Your task to perform on an android device: What's the weather going to be this weekend? Image 0: 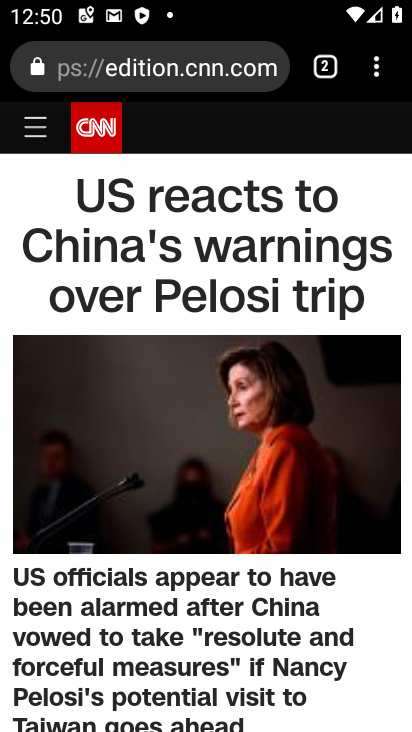
Step 0: press home button
Your task to perform on an android device: What's the weather going to be this weekend? Image 1: 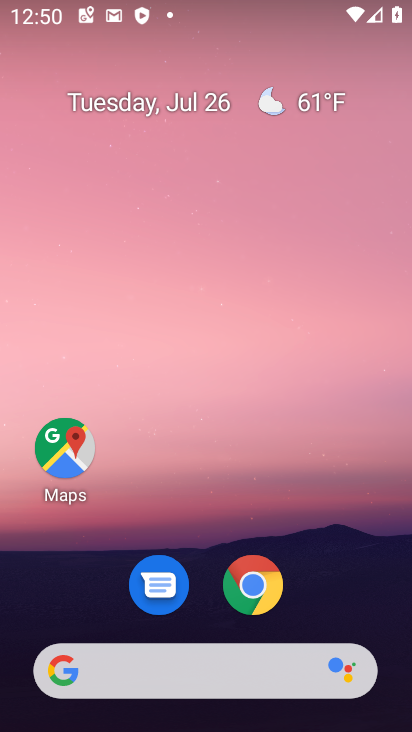
Step 1: click (125, 670)
Your task to perform on an android device: What's the weather going to be this weekend? Image 2: 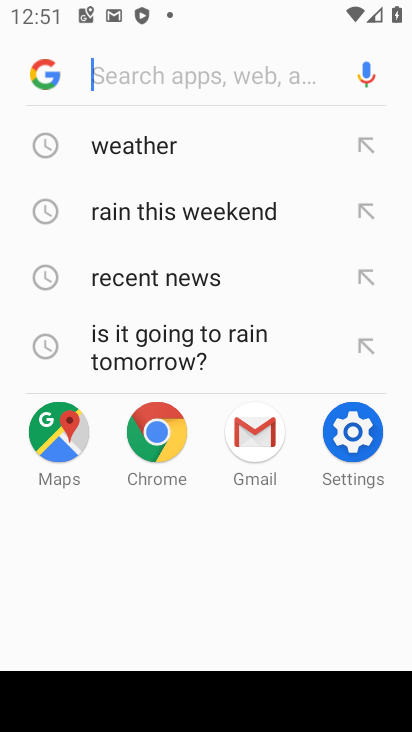
Step 2: click (168, 140)
Your task to perform on an android device: What's the weather going to be this weekend? Image 3: 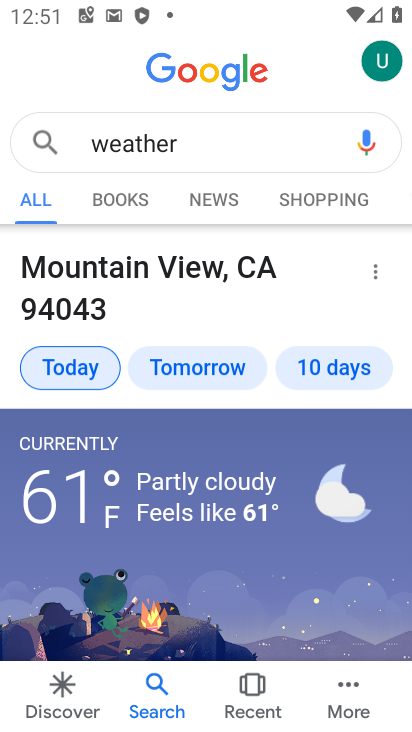
Step 3: click (310, 372)
Your task to perform on an android device: What's the weather going to be this weekend? Image 4: 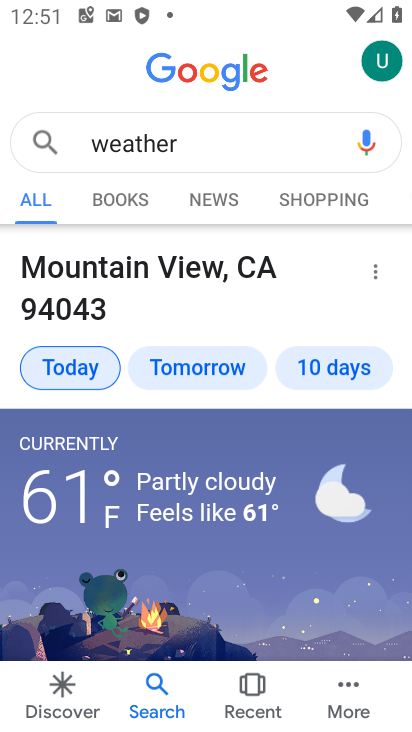
Step 4: click (341, 370)
Your task to perform on an android device: What's the weather going to be this weekend? Image 5: 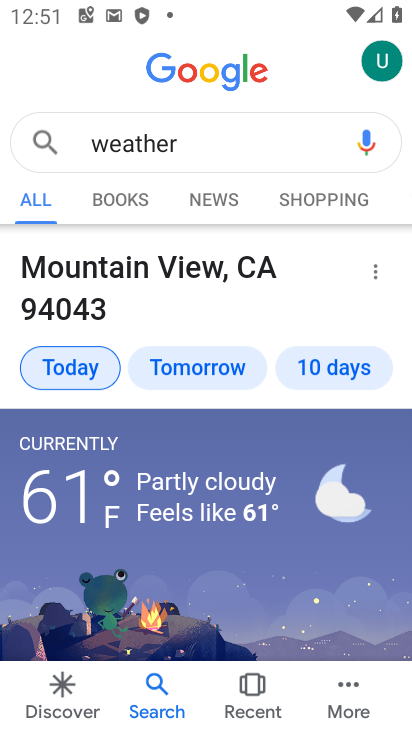
Step 5: drag from (193, 640) to (357, 239)
Your task to perform on an android device: What's the weather going to be this weekend? Image 6: 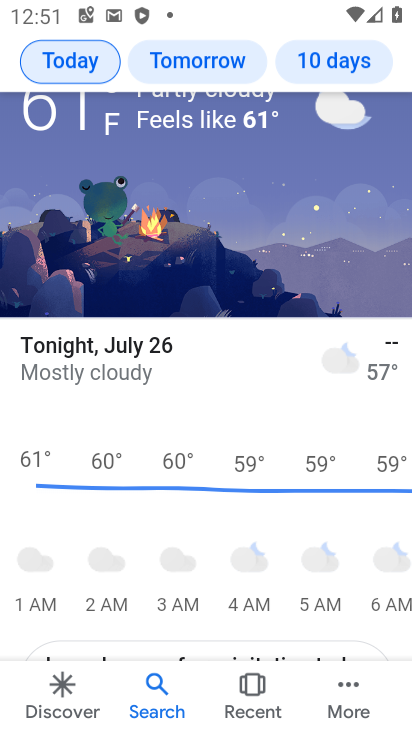
Step 6: drag from (338, 269) to (289, 485)
Your task to perform on an android device: What's the weather going to be this weekend? Image 7: 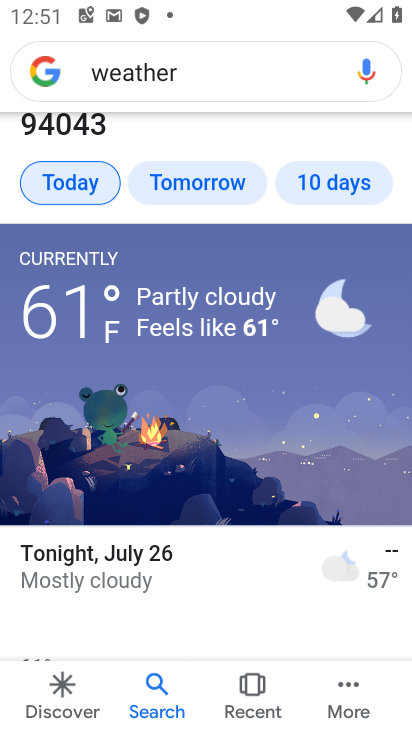
Step 7: click (346, 182)
Your task to perform on an android device: What's the weather going to be this weekend? Image 8: 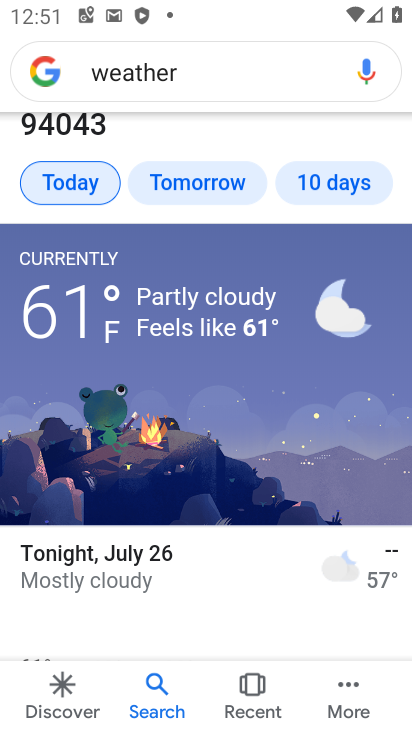
Step 8: click (339, 179)
Your task to perform on an android device: What's the weather going to be this weekend? Image 9: 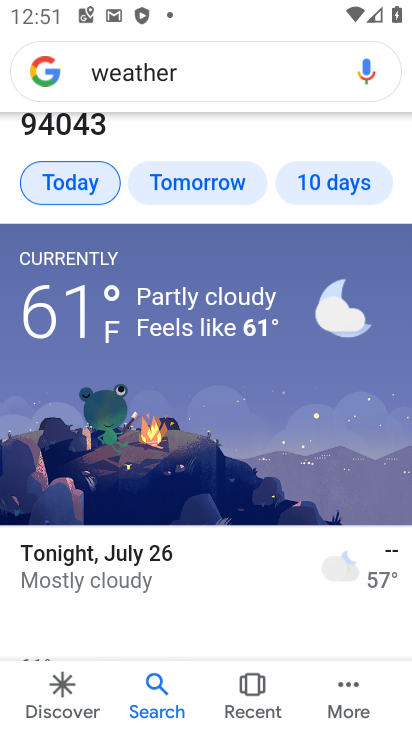
Step 9: click (323, 182)
Your task to perform on an android device: What's the weather going to be this weekend? Image 10: 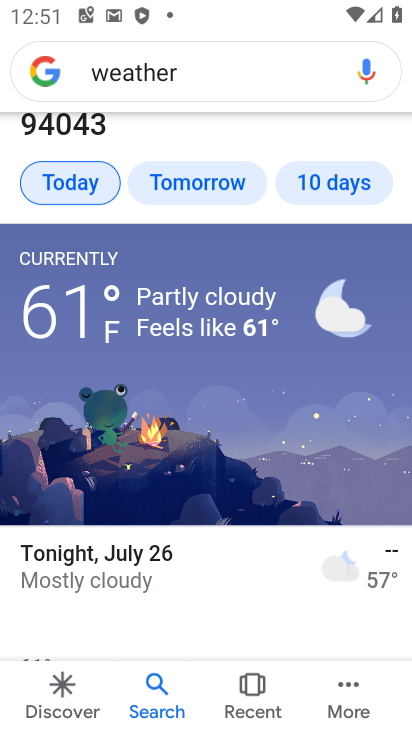
Step 10: click (323, 181)
Your task to perform on an android device: What's the weather going to be this weekend? Image 11: 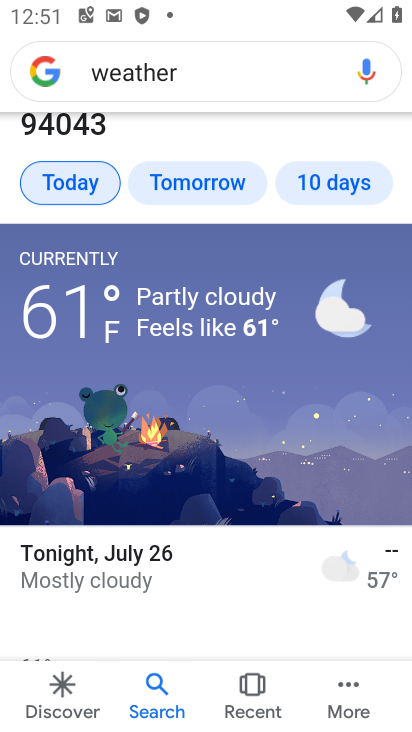
Step 11: click (330, 183)
Your task to perform on an android device: What's the weather going to be this weekend? Image 12: 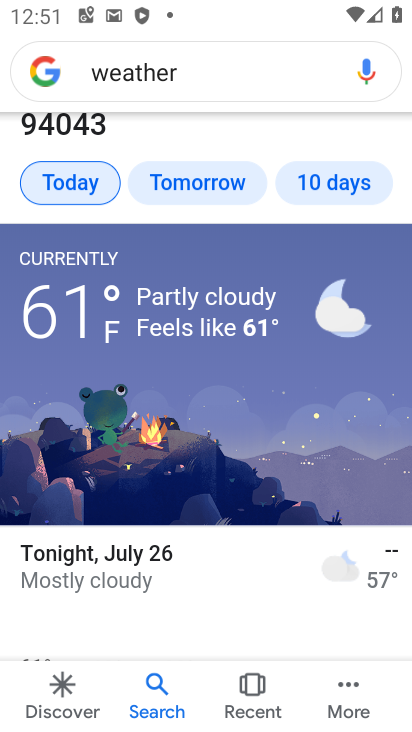
Step 12: task complete